Your task to perform on an android device: Is it going to rain this weekend? Image 0: 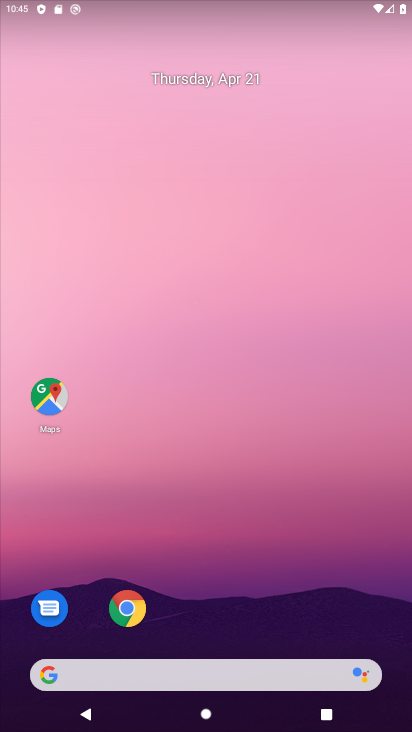
Step 0: click (136, 609)
Your task to perform on an android device: Is it going to rain this weekend? Image 1: 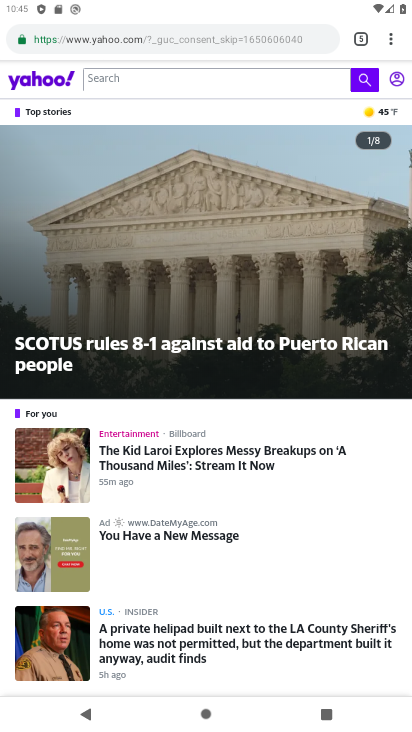
Step 1: click (356, 40)
Your task to perform on an android device: Is it going to rain this weekend? Image 2: 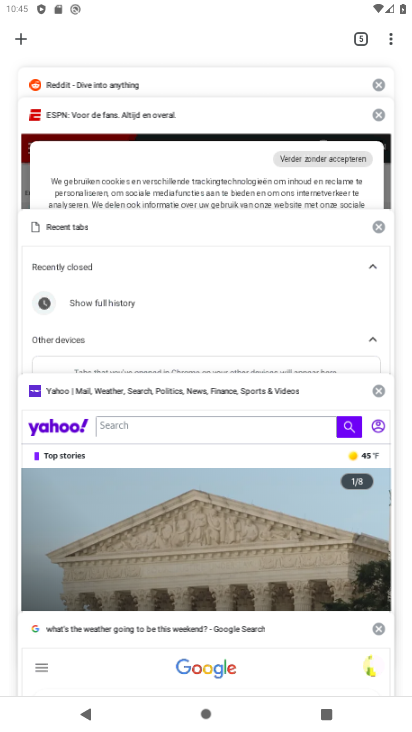
Step 2: click (18, 42)
Your task to perform on an android device: Is it going to rain this weekend? Image 3: 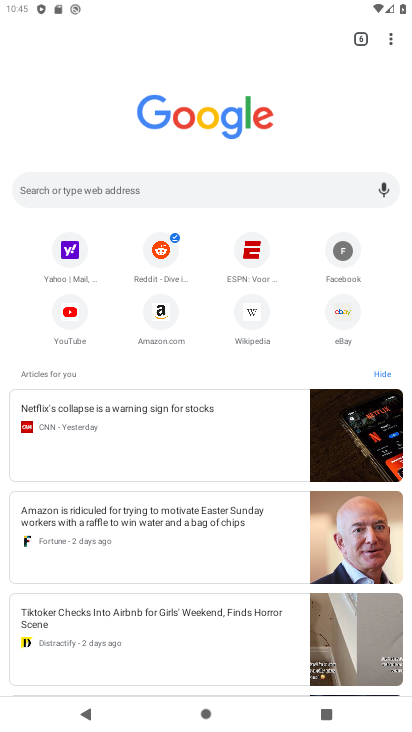
Step 3: click (139, 191)
Your task to perform on an android device: Is it going to rain this weekend? Image 4: 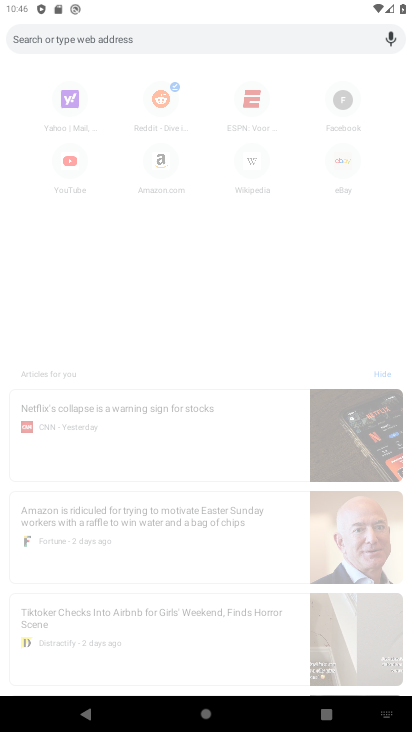
Step 4: type "is it going to rain this weekend"
Your task to perform on an android device: Is it going to rain this weekend? Image 5: 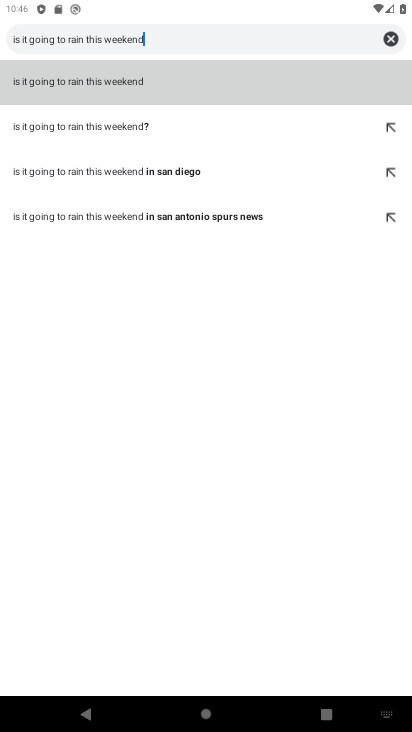
Step 5: click (113, 128)
Your task to perform on an android device: Is it going to rain this weekend? Image 6: 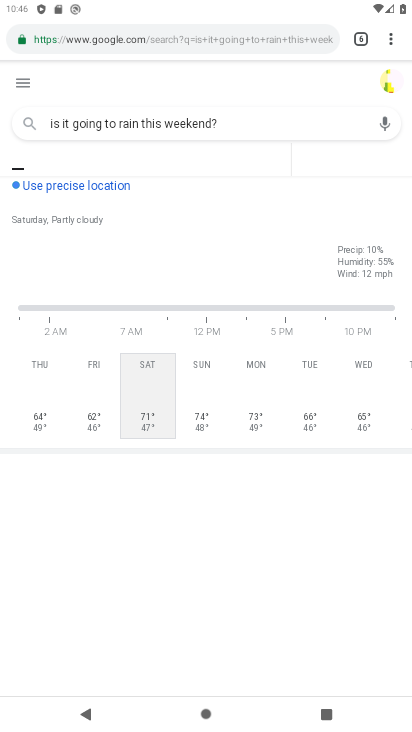
Step 6: click (113, 128)
Your task to perform on an android device: Is it going to rain this weekend? Image 7: 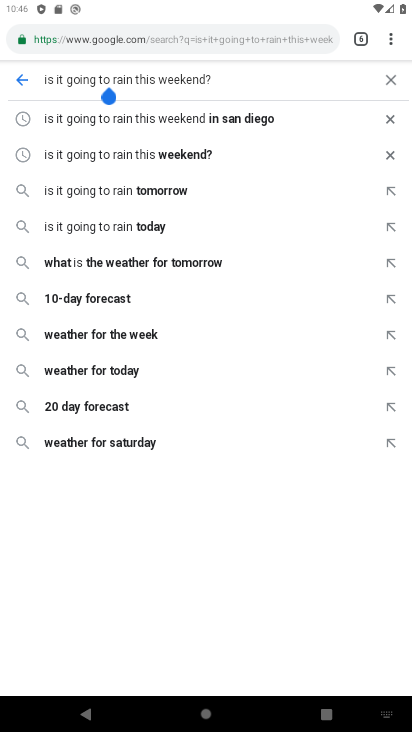
Step 7: click (131, 156)
Your task to perform on an android device: Is it going to rain this weekend? Image 8: 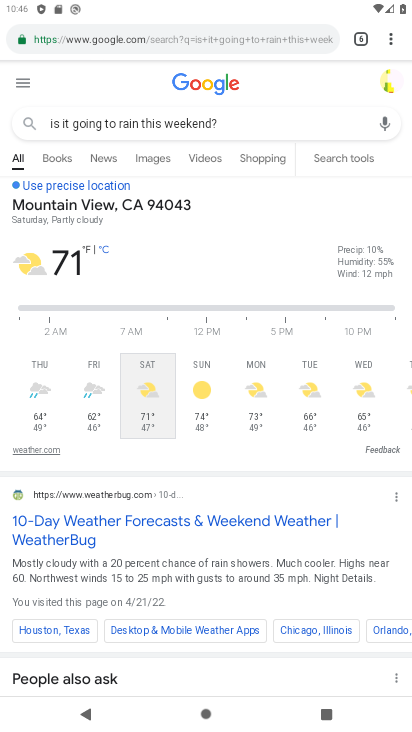
Step 8: task complete